Your task to perform on an android device: set default search engine in the chrome app Image 0: 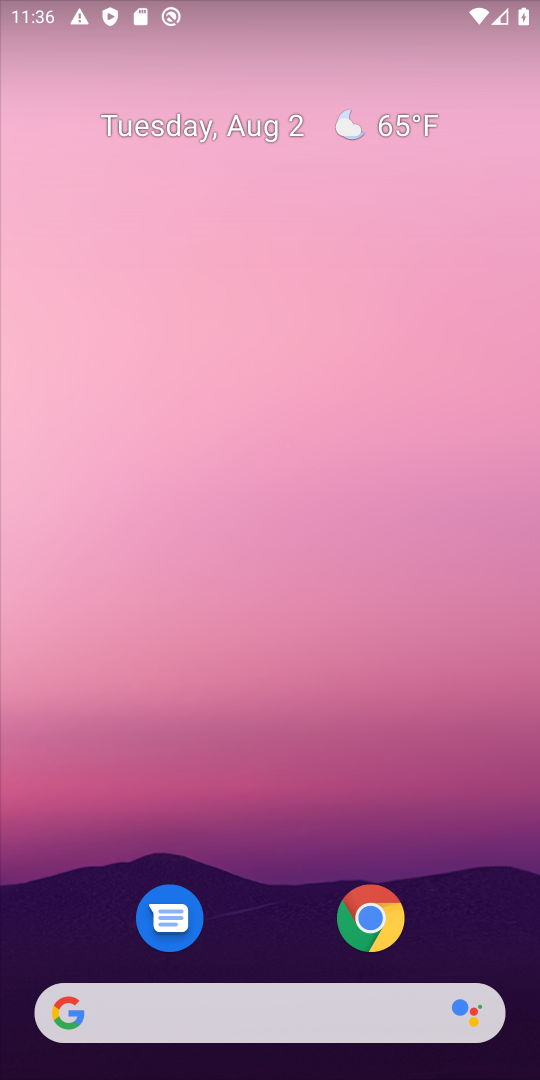
Step 0: click (372, 925)
Your task to perform on an android device: set default search engine in the chrome app Image 1: 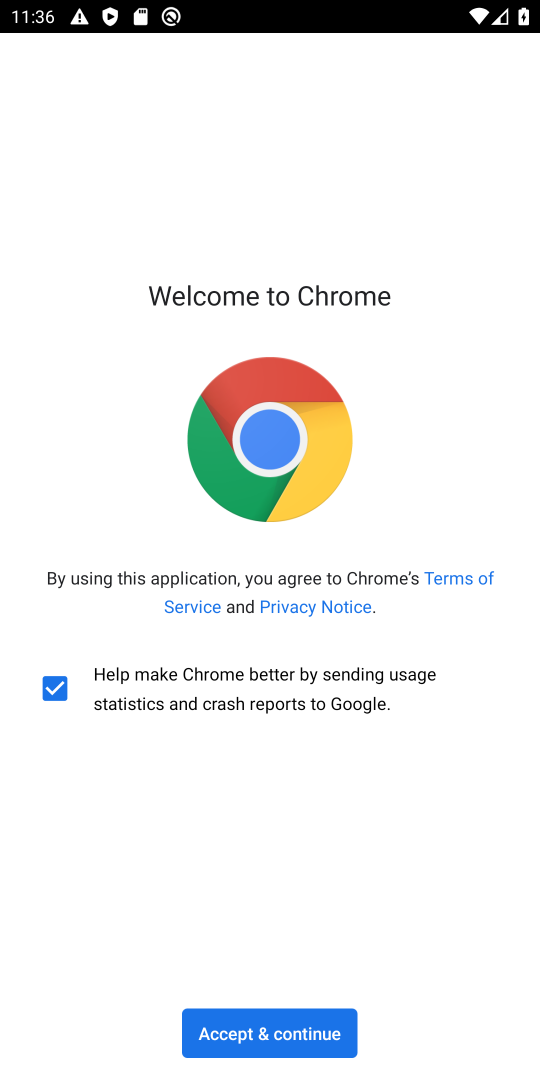
Step 1: click (330, 1026)
Your task to perform on an android device: set default search engine in the chrome app Image 2: 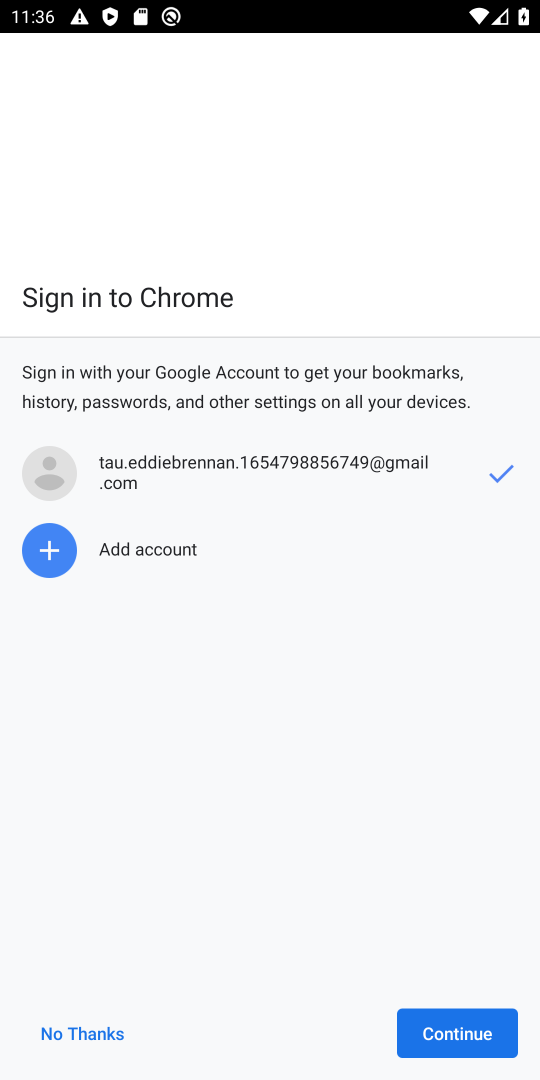
Step 2: click (433, 1037)
Your task to perform on an android device: set default search engine in the chrome app Image 3: 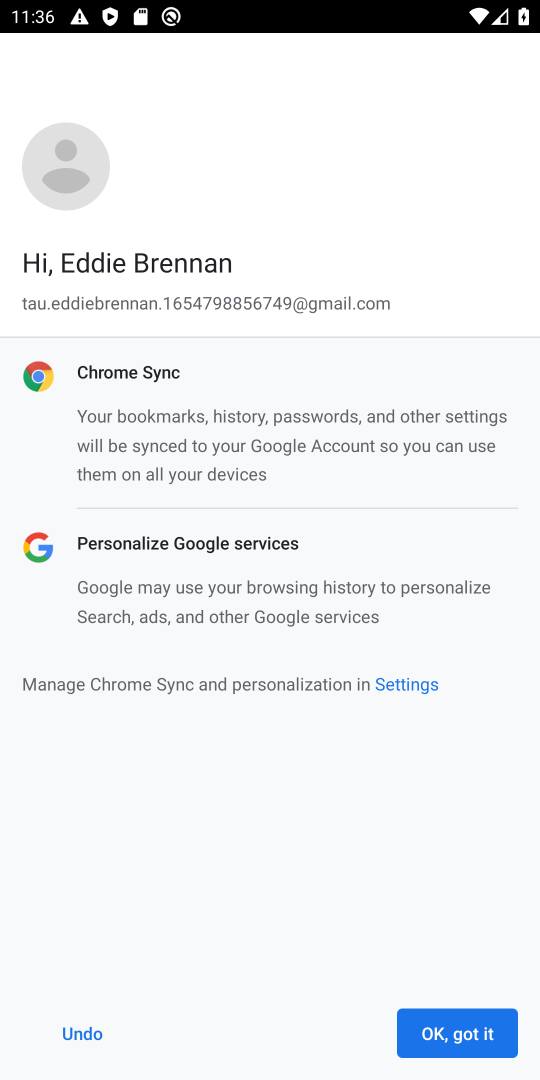
Step 3: click (433, 1037)
Your task to perform on an android device: set default search engine in the chrome app Image 4: 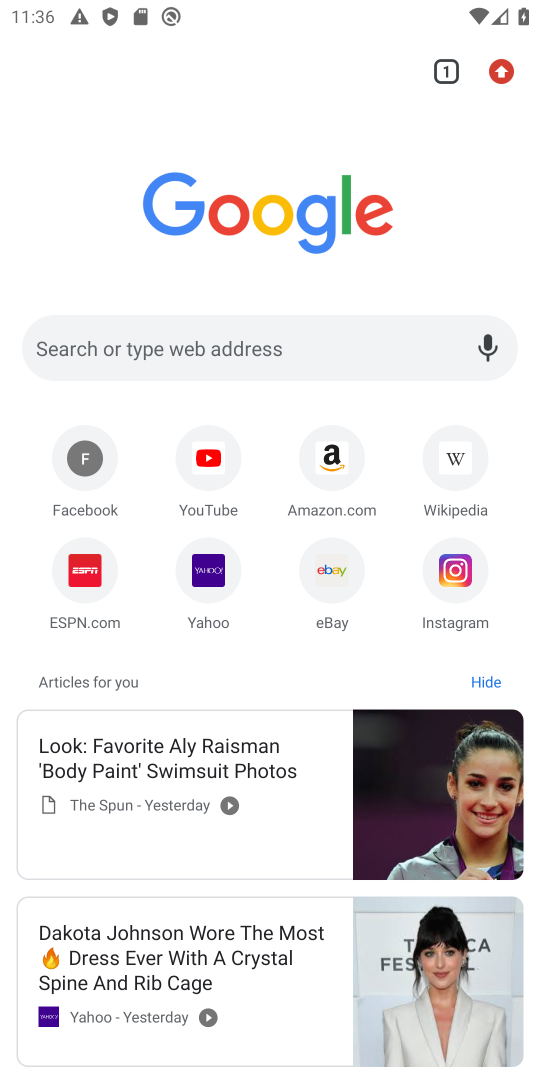
Step 4: click (508, 70)
Your task to perform on an android device: set default search engine in the chrome app Image 5: 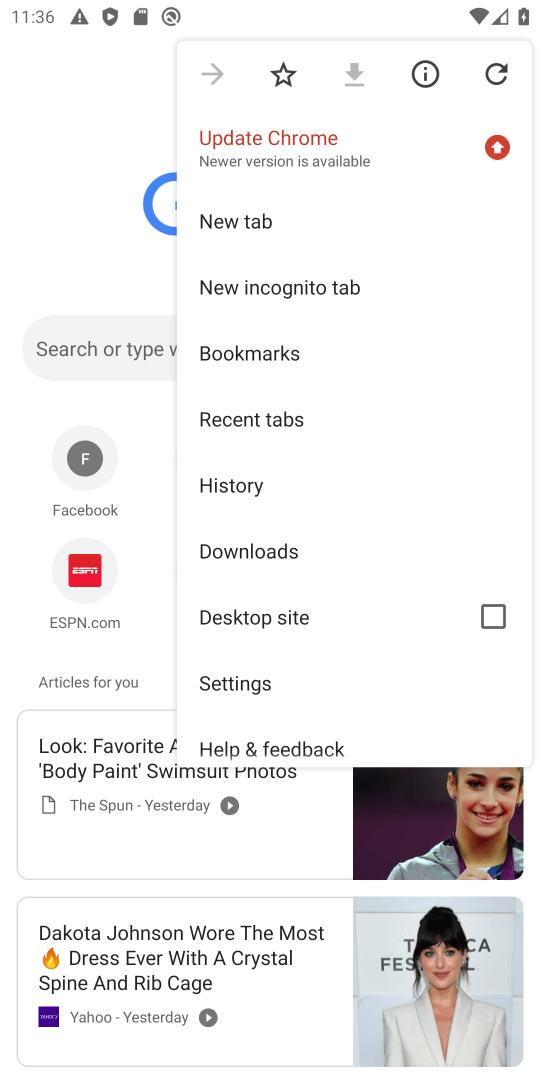
Step 5: click (250, 683)
Your task to perform on an android device: set default search engine in the chrome app Image 6: 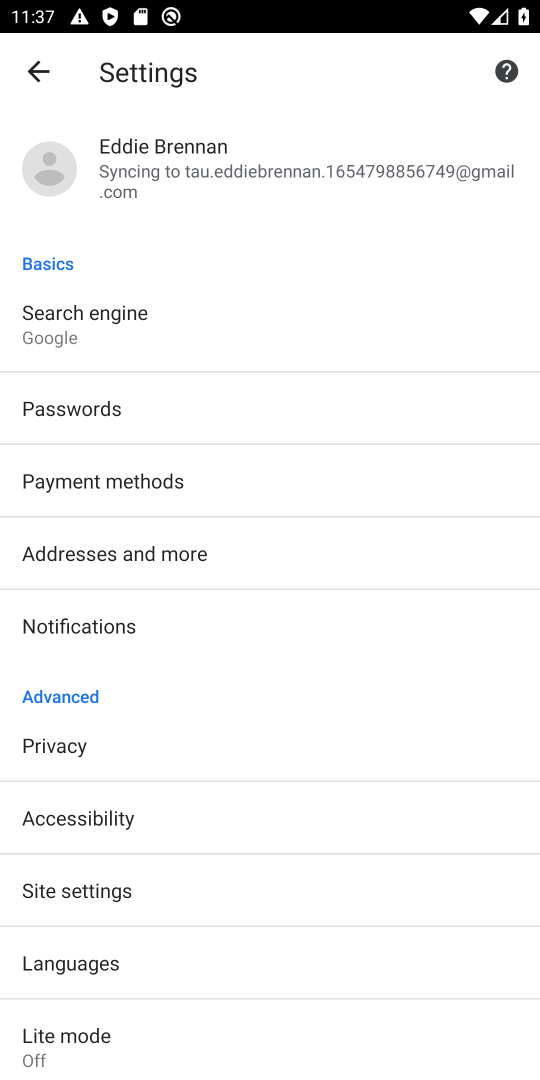
Step 6: click (77, 333)
Your task to perform on an android device: set default search engine in the chrome app Image 7: 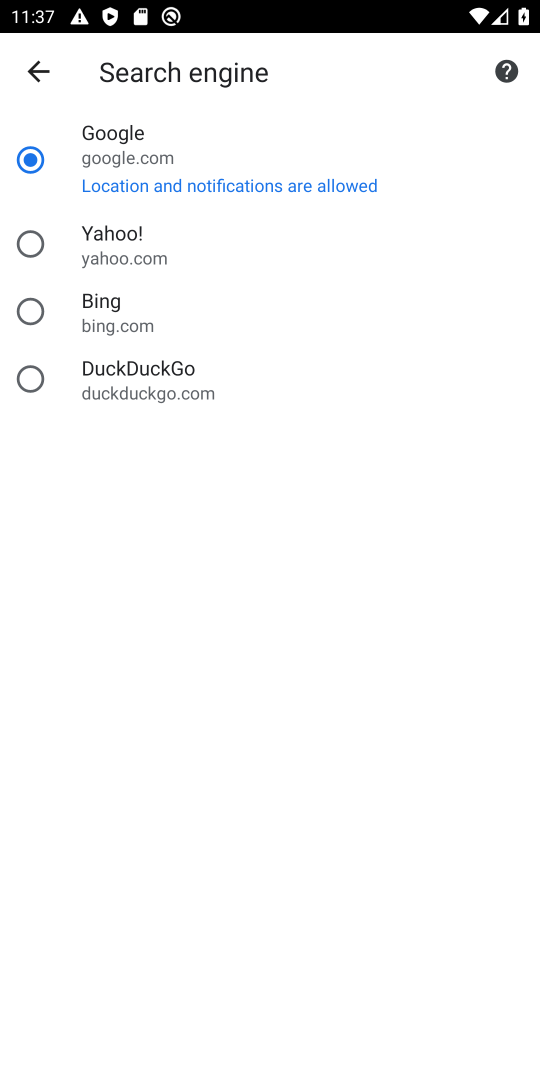
Step 7: task complete